Your task to perform on an android device: Open the map Image 0: 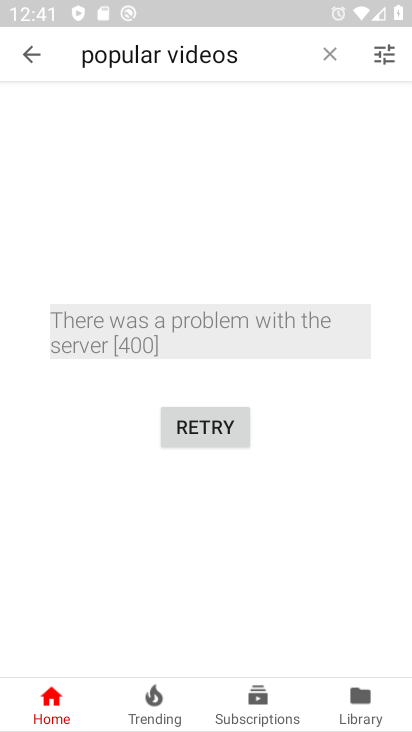
Step 0: press home button
Your task to perform on an android device: Open the map Image 1: 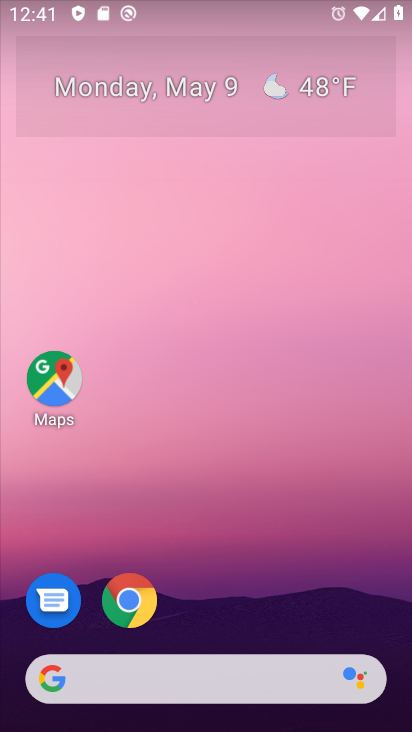
Step 1: click (54, 406)
Your task to perform on an android device: Open the map Image 2: 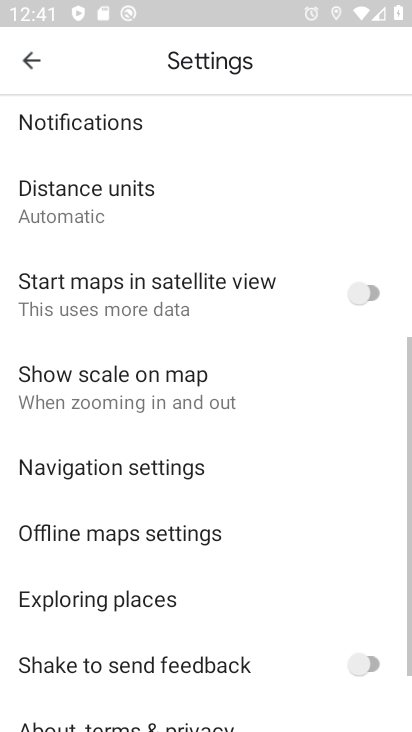
Step 2: click (43, 71)
Your task to perform on an android device: Open the map Image 3: 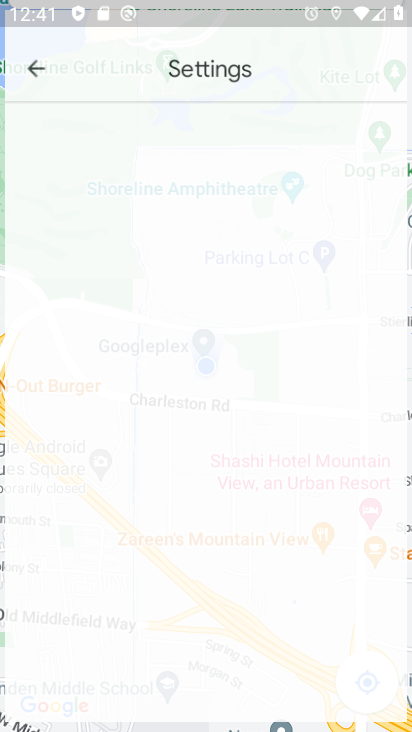
Step 3: click (43, 66)
Your task to perform on an android device: Open the map Image 4: 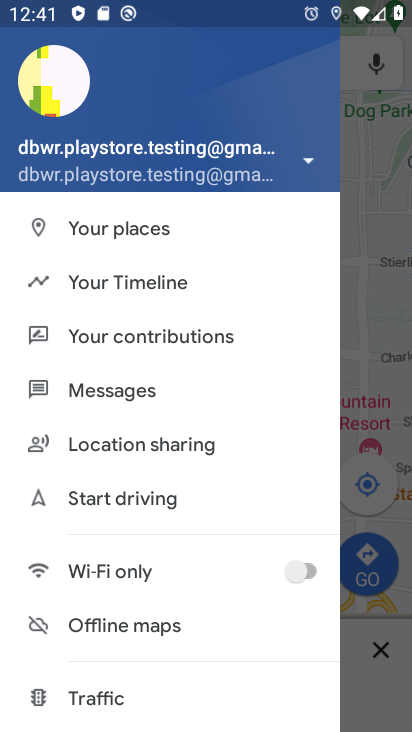
Step 4: click (369, 137)
Your task to perform on an android device: Open the map Image 5: 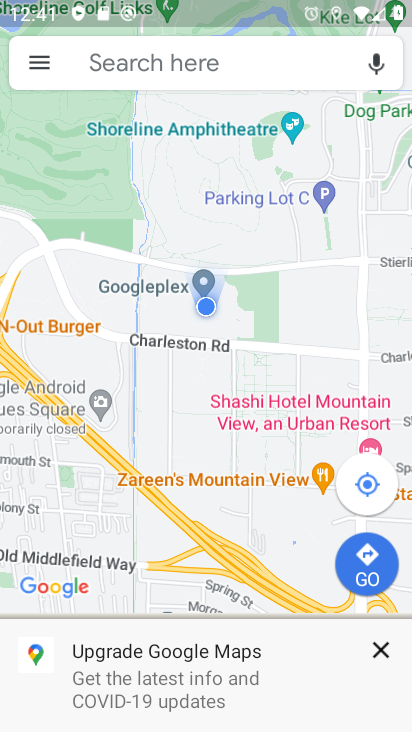
Step 5: task complete